Your task to perform on an android device: change the upload size in google photos Image 0: 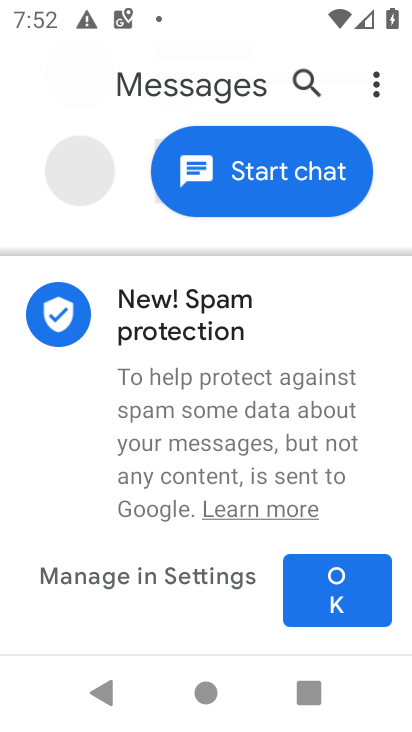
Step 0: press home button
Your task to perform on an android device: change the upload size in google photos Image 1: 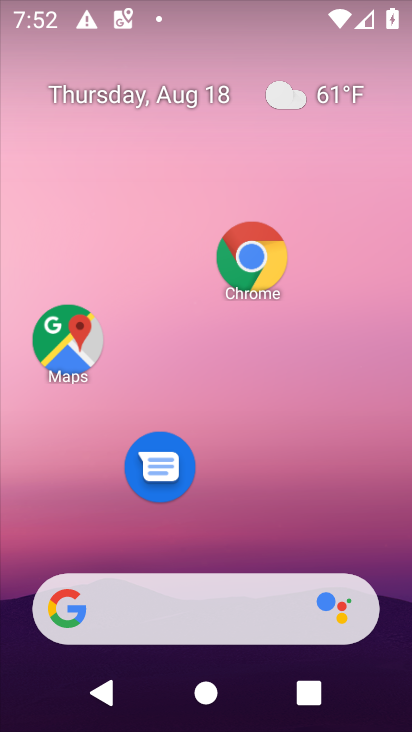
Step 1: task complete